Your task to perform on an android device: Do I have any events this weekend? Image 0: 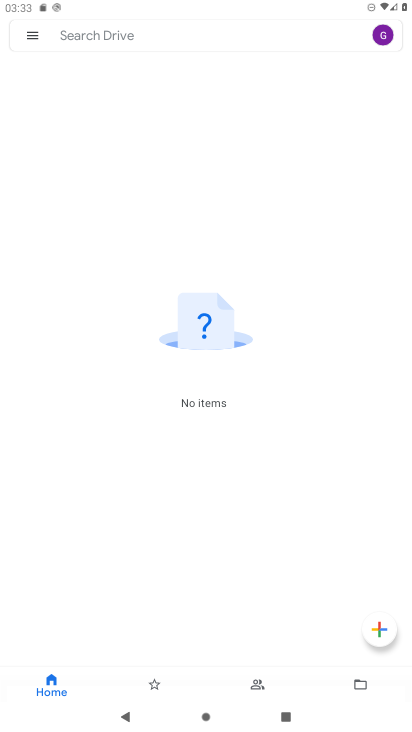
Step 0: press home button
Your task to perform on an android device: Do I have any events this weekend? Image 1: 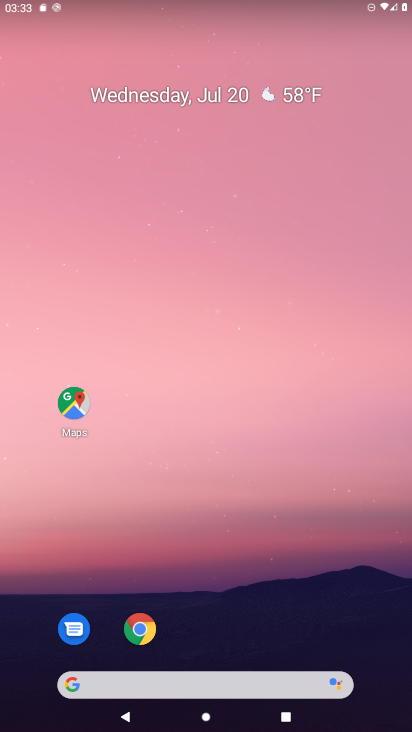
Step 1: drag from (207, 577) to (271, 124)
Your task to perform on an android device: Do I have any events this weekend? Image 2: 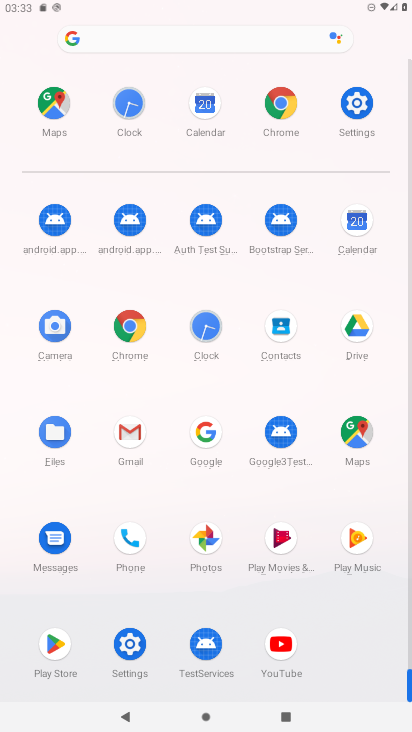
Step 2: click (353, 209)
Your task to perform on an android device: Do I have any events this weekend? Image 3: 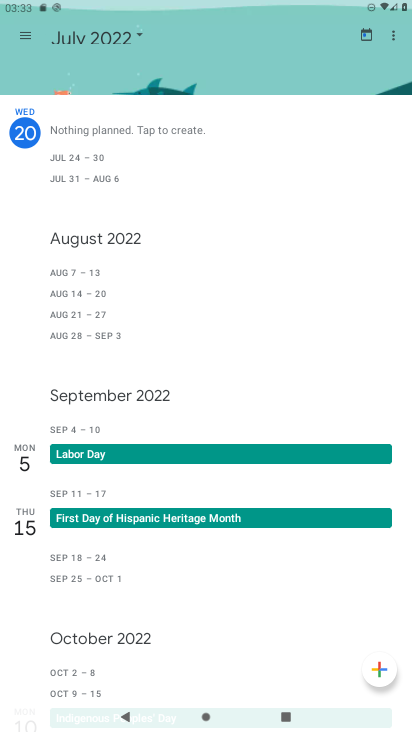
Step 3: click (115, 47)
Your task to perform on an android device: Do I have any events this weekend? Image 4: 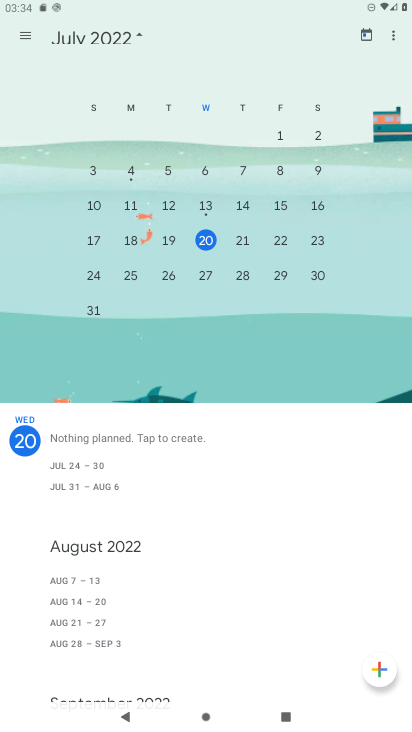
Step 4: click (236, 241)
Your task to perform on an android device: Do I have any events this weekend? Image 5: 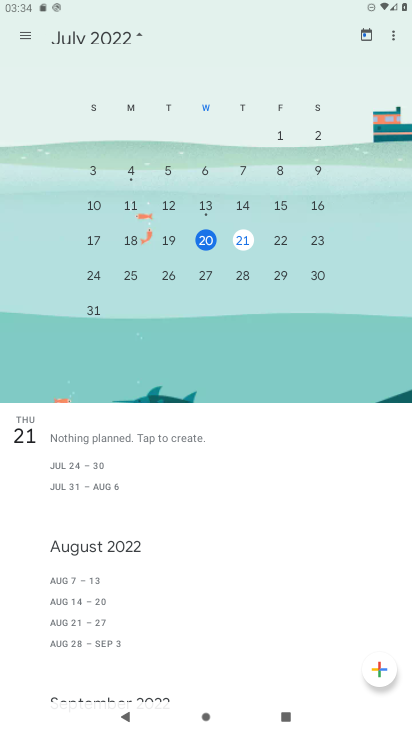
Step 5: task complete